Your task to perform on an android device: turn off location Image 0: 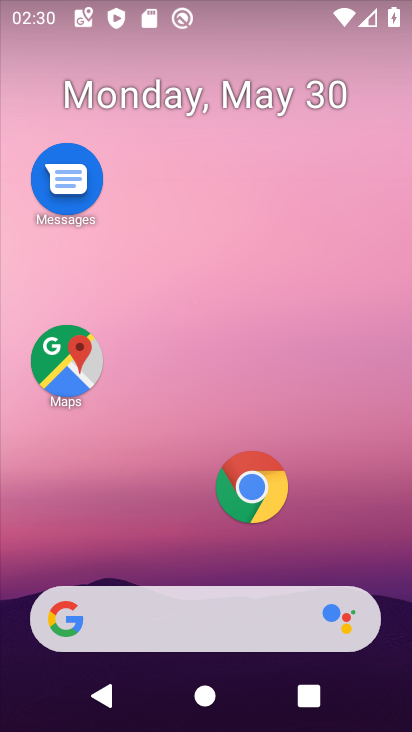
Step 0: drag from (206, 535) to (163, 0)
Your task to perform on an android device: turn off location Image 1: 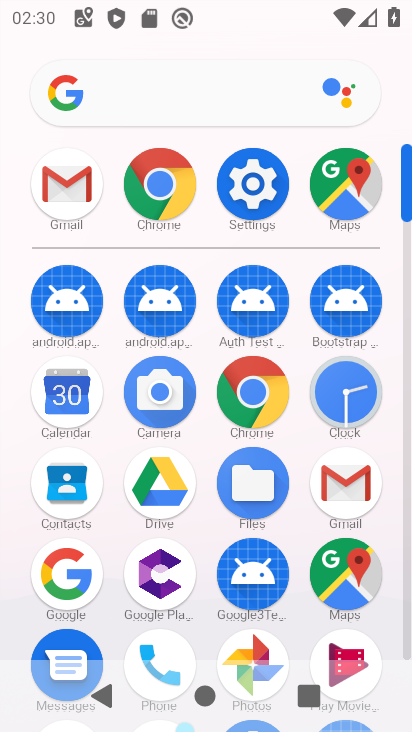
Step 1: click (252, 213)
Your task to perform on an android device: turn off location Image 2: 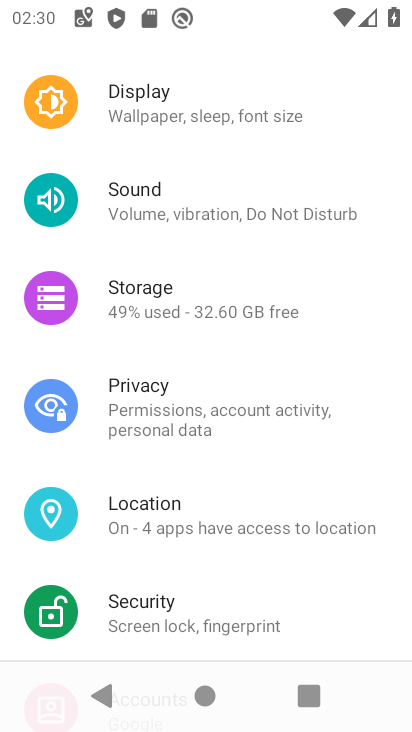
Step 2: click (150, 519)
Your task to perform on an android device: turn off location Image 3: 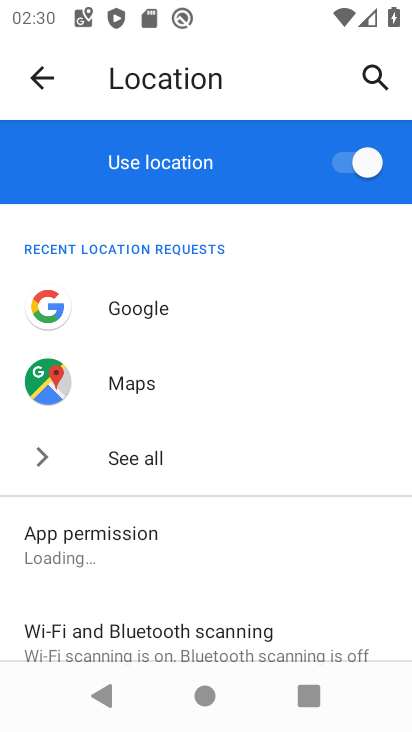
Step 3: click (344, 166)
Your task to perform on an android device: turn off location Image 4: 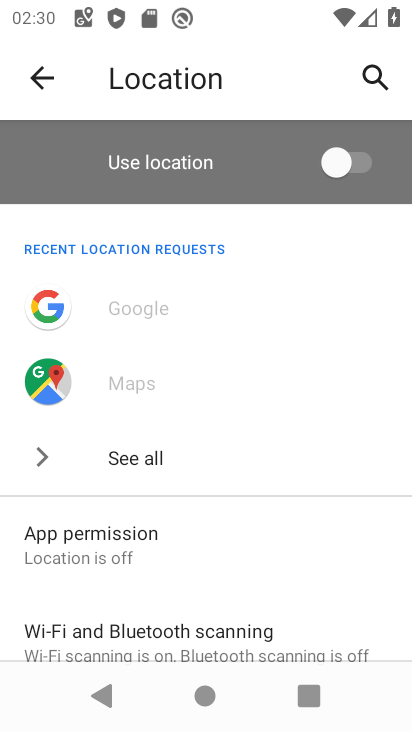
Step 4: task complete